Your task to perform on an android device: Open calendar and show me the second week of next month Image 0: 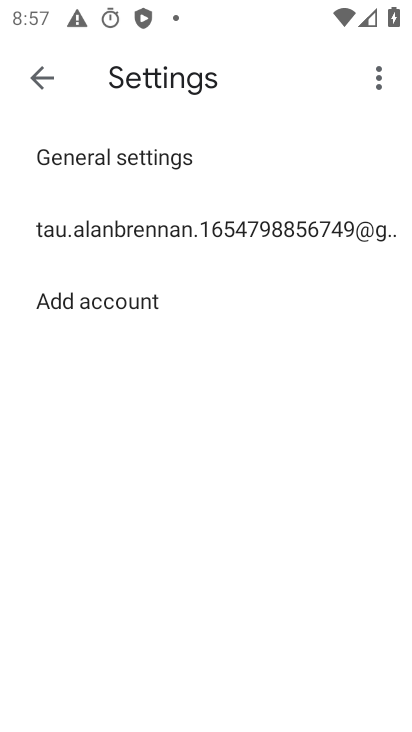
Step 0: press home button
Your task to perform on an android device: Open calendar and show me the second week of next month Image 1: 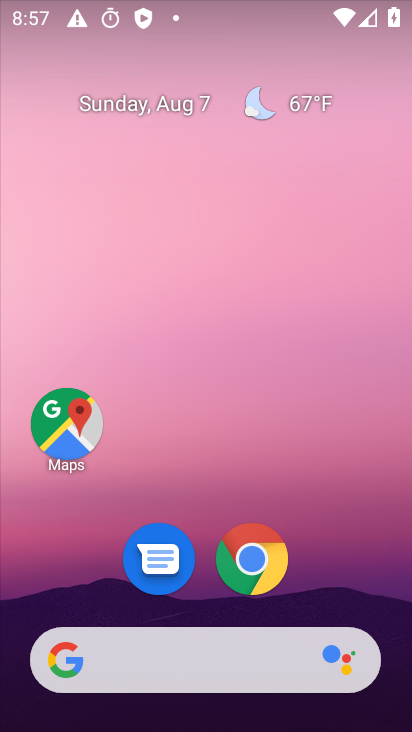
Step 1: drag from (220, 669) to (225, 306)
Your task to perform on an android device: Open calendar and show me the second week of next month Image 2: 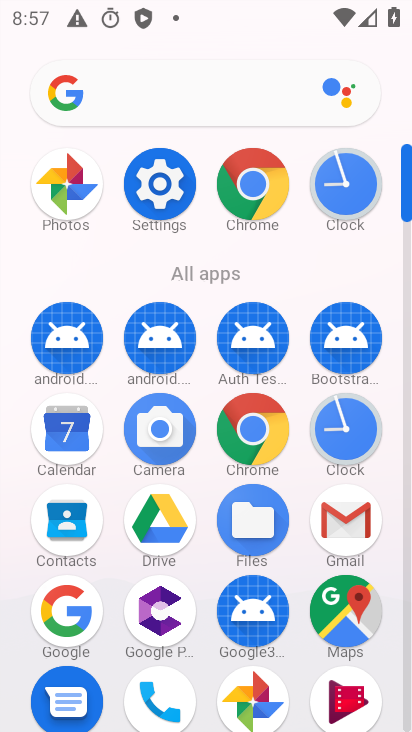
Step 2: click (57, 423)
Your task to perform on an android device: Open calendar and show me the second week of next month Image 3: 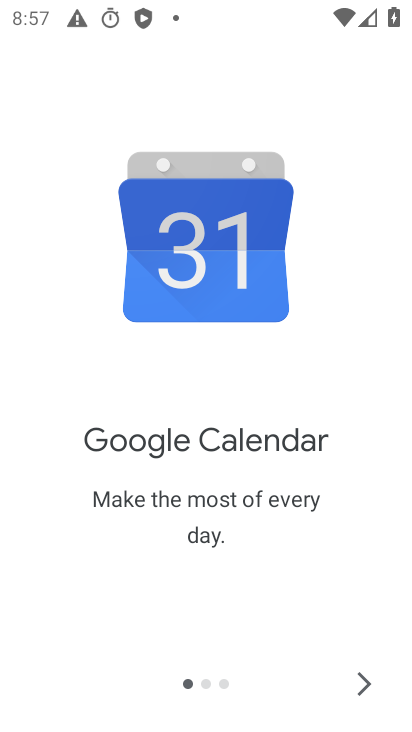
Step 3: click (359, 682)
Your task to perform on an android device: Open calendar and show me the second week of next month Image 4: 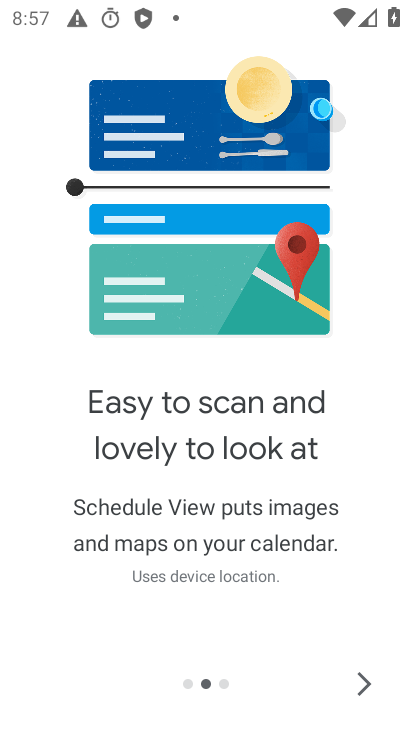
Step 4: click (359, 682)
Your task to perform on an android device: Open calendar and show me the second week of next month Image 5: 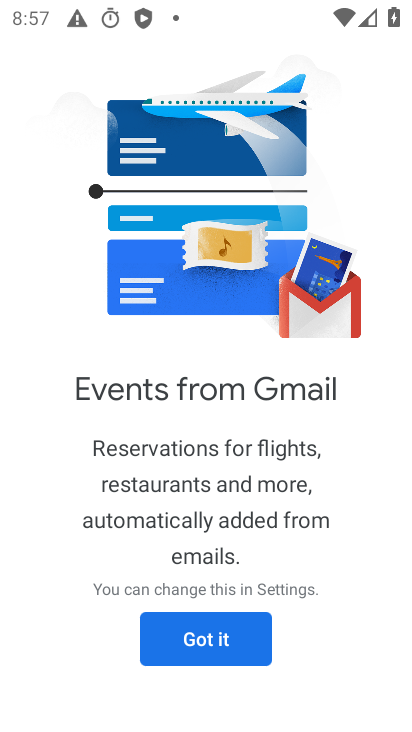
Step 5: click (237, 649)
Your task to perform on an android device: Open calendar and show me the second week of next month Image 6: 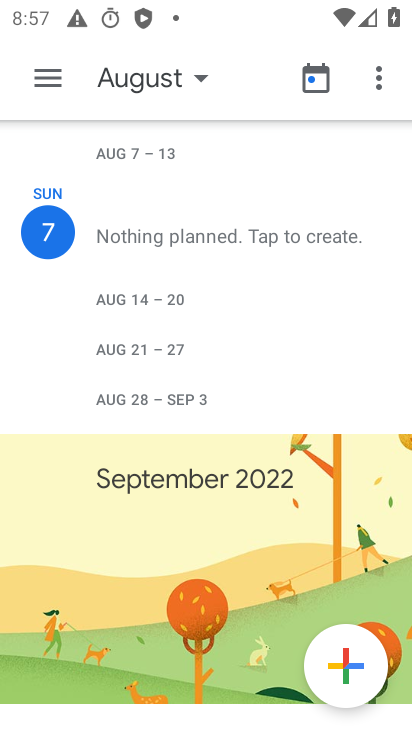
Step 6: click (195, 77)
Your task to perform on an android device: Open calendar and show me the second week of next month Image 7: 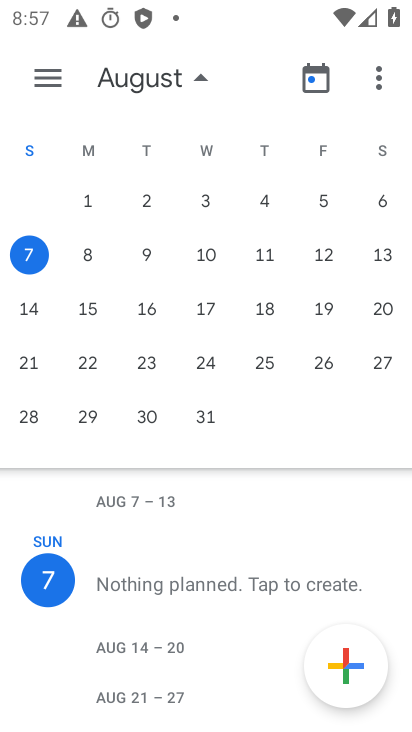
Step 7: click (263, 259)
Your task to perform on an android device: Open calendar and show me the second week of next month Image 8: 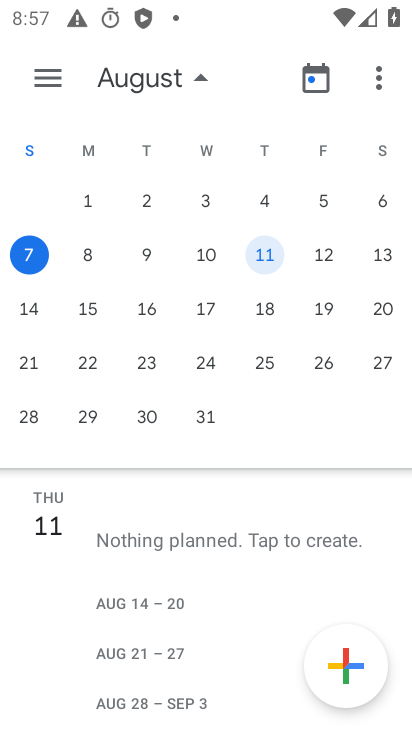
Step 8: drag from (377, 281) to (23, 284)
Your task to perform on an android device: Open calendar and show me the second week of next month Image 9: 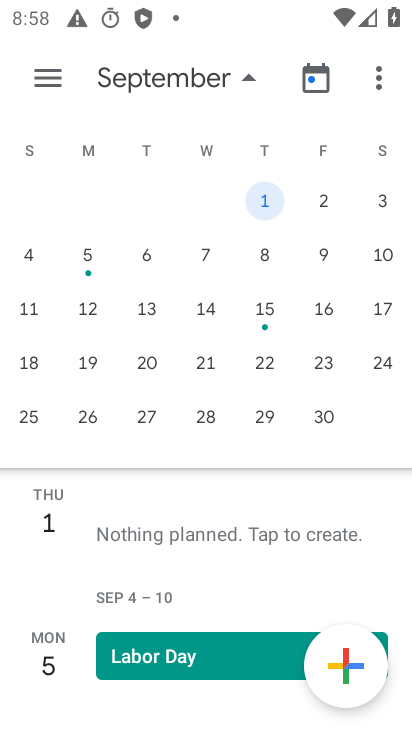
Step 9: click (207, 253)
Your task to perform on an android device: Open calendar and show me the second week of next month Image 10: 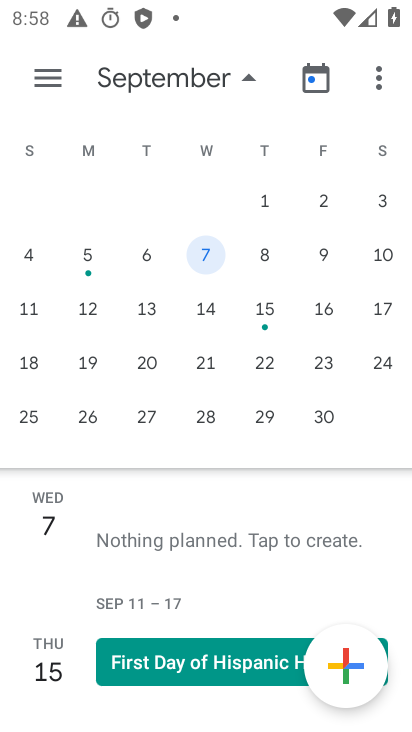
Step 10: task complete